Your task to perform on an android device: open device folders in google photos Image 0: 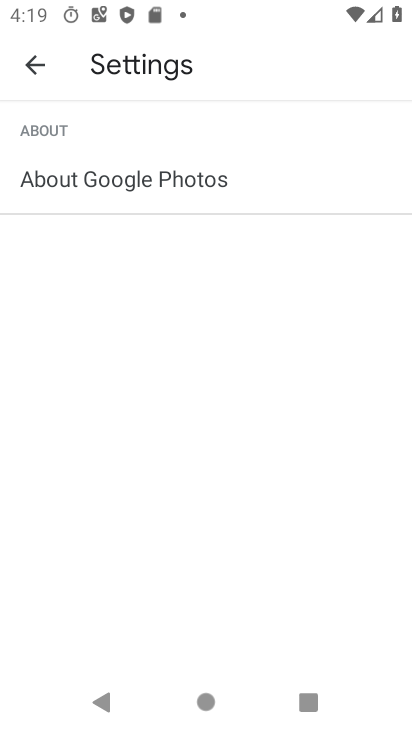
Step 0: press home button
Your task to perform on an android device: open device folders in google photos Image 1: 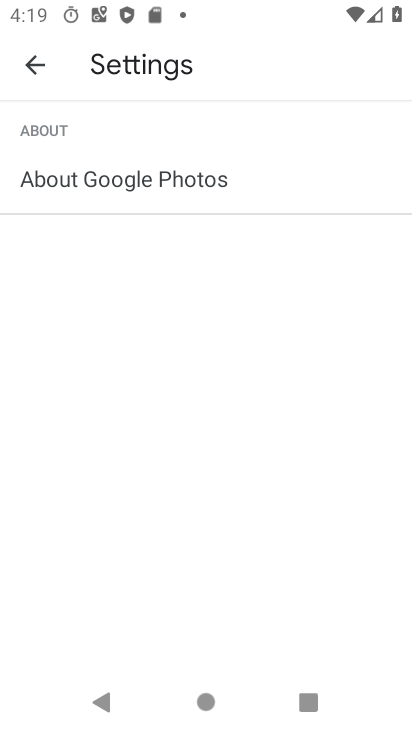
Step 1: press home button
Your task to perform on an android device: open device folders in google photos Image 2: 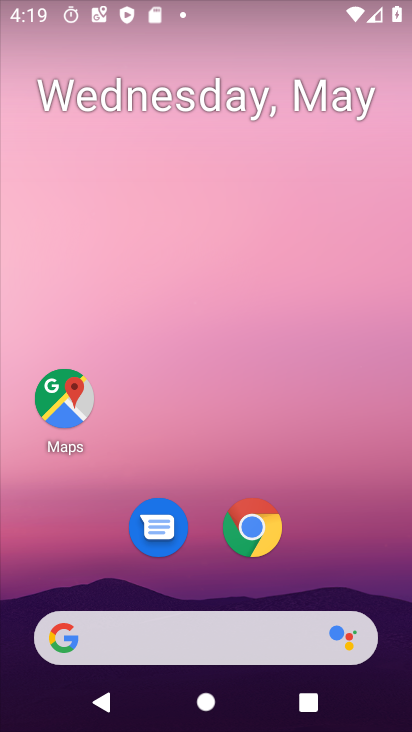
Step 2: drag from (329, 541) to (288, 66)
Your task to perform on an android device: open device folders in google photos Image 3: 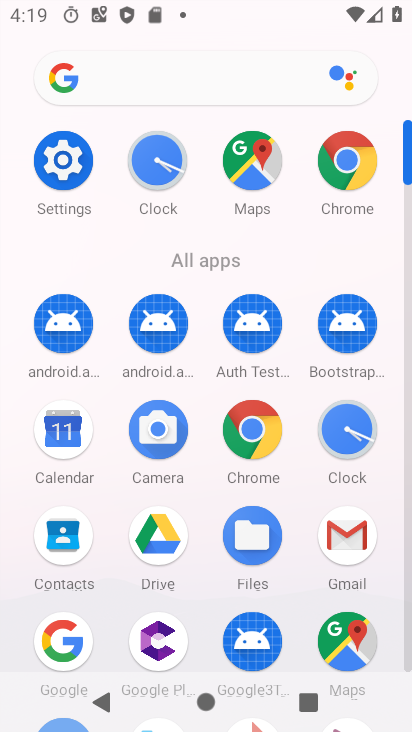
Step 3: click (405, 654)
Your task to perform on an android device: open device folders in google photos Image 4: 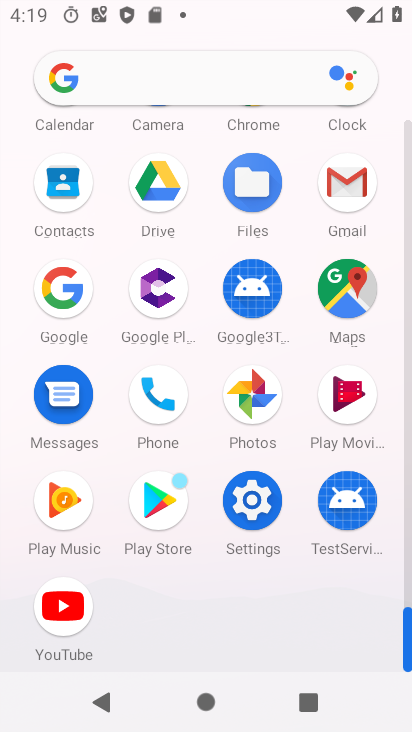
Step 4: click (238, 406)
Your task to perform on an android device: open device folders in google photos Image 5: 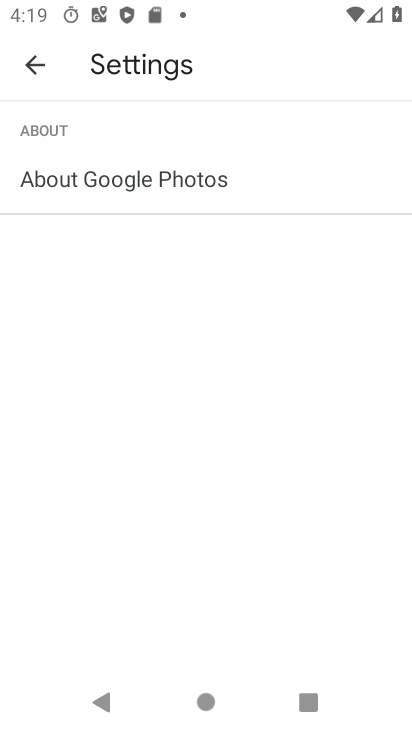
Step 5: click (41, 44)
Your task to perform on an android device: open device folders in google photos Image 6: 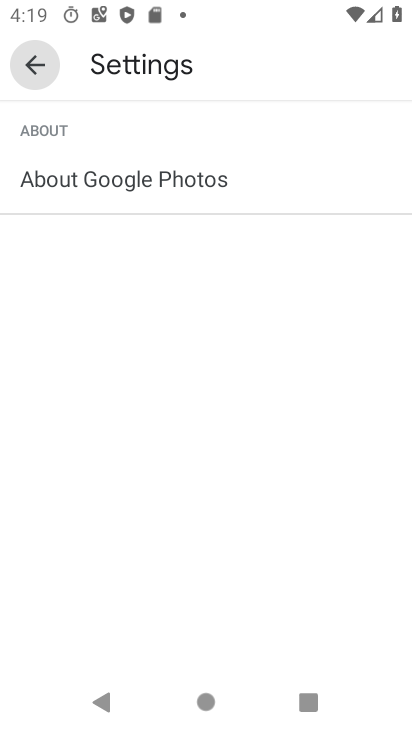
Step 6: click (41, 44)
Your task to perform on an android device: open device folders in google photos Image 7: 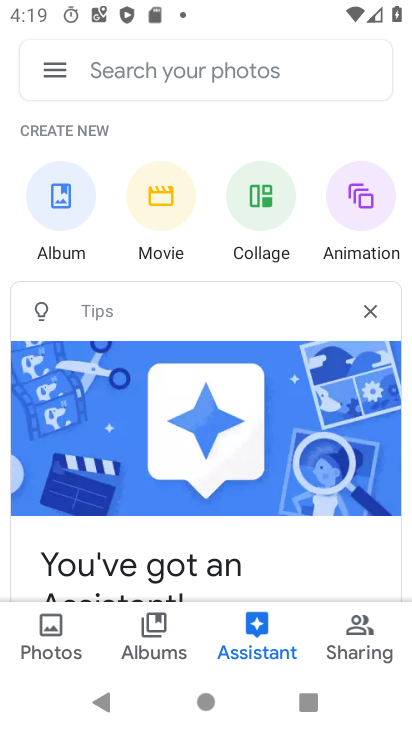
Step 7: click (162, 649)
Your task to perform on an android device: open device folders in google photos Image 8: 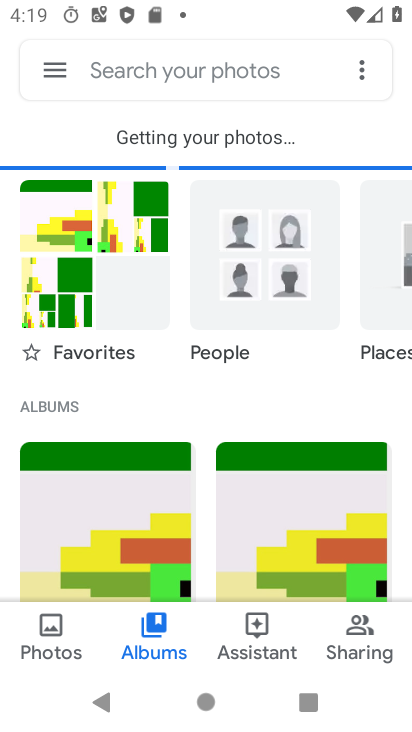
Step 8: task complete